Your task to perform on an android device: Open CNN.com Image 0: 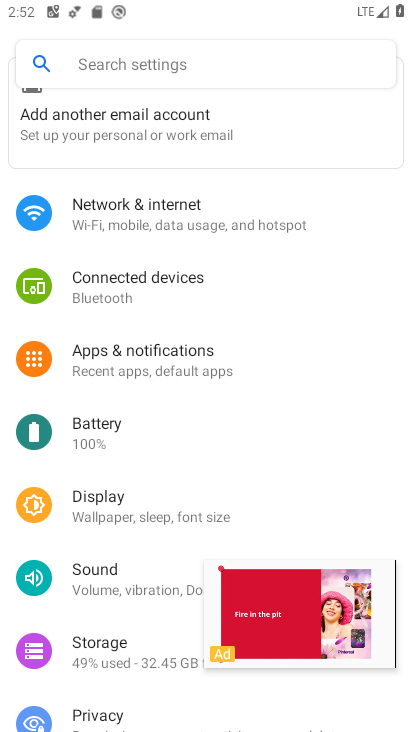
Step 0: drag from (323, 614) to (185, 728)
Your task to perform on an android device: Open CNN.com Image 1: 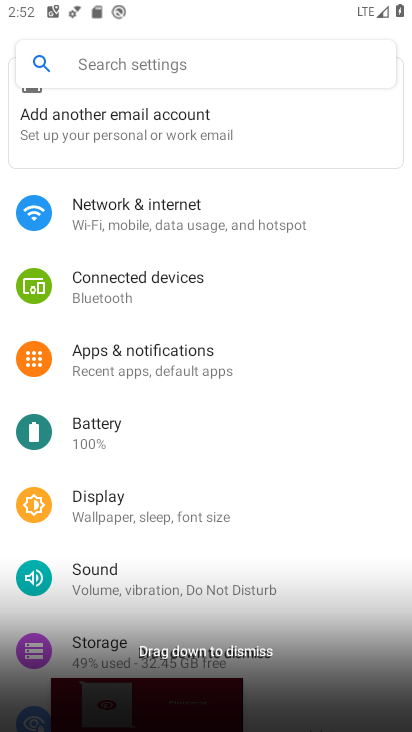
Step 1: press home button
Your task to perform on an android device: Open CNN.com Image 2: 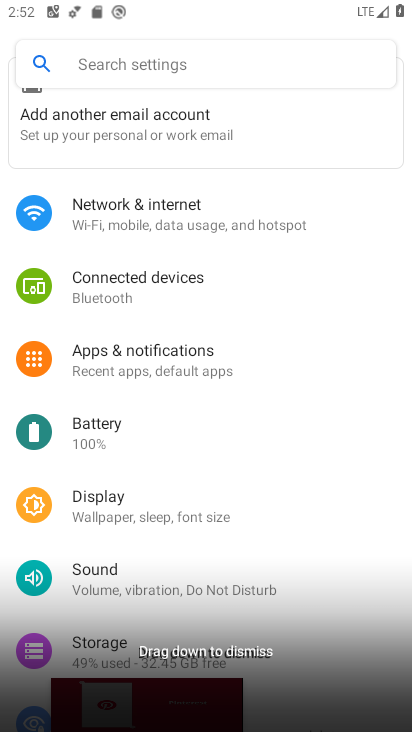
Step 2: drag from (185, 728) to (408, 495)
Your task to perform on an android device: Open CNN.com Image 3: 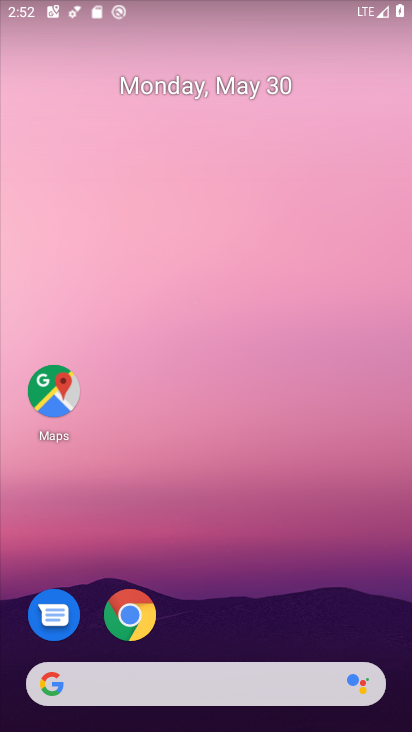
Step 3: click (214, 682)
Your task to perform on an android device: Open CNN.com Image 4: 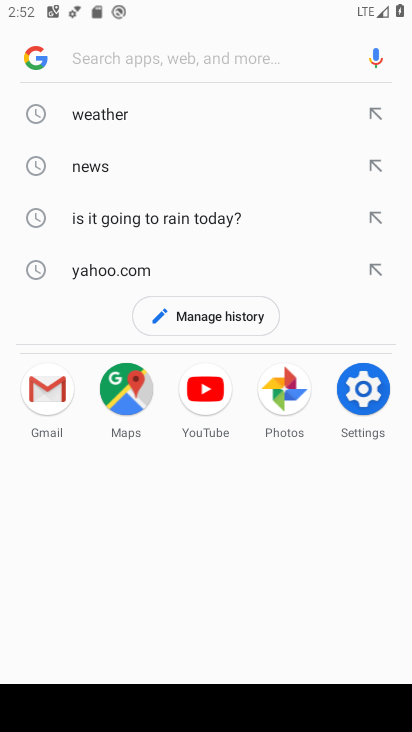
Step 4: type "cnn.com"
Your task to perform on an android device: Open CNN.com Image 5: 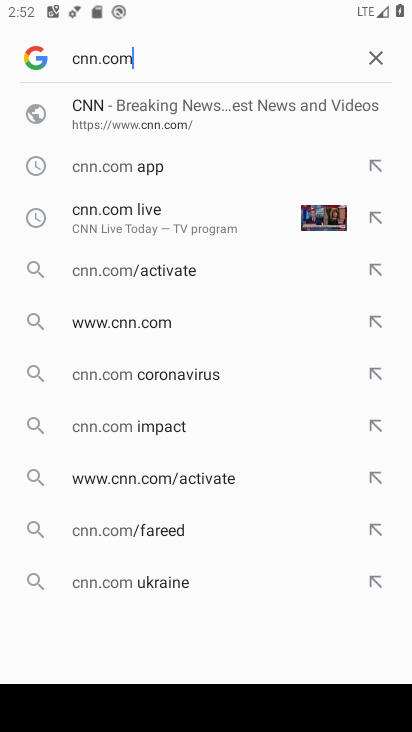
Step 5: click (139, 125)
Your task to perform on an android device: Open CNN.com Image 6: 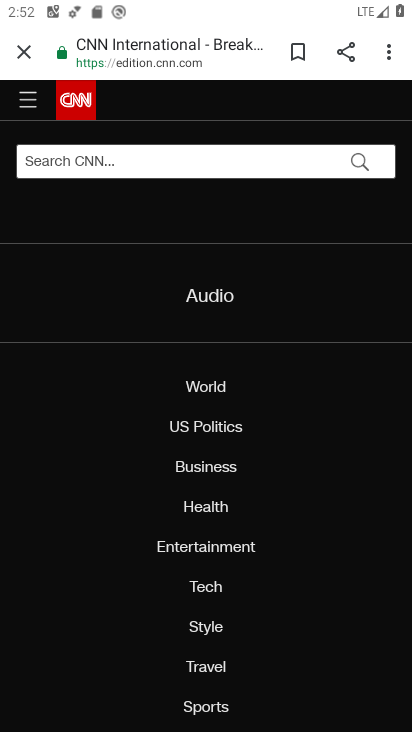
Step 6: task complete